Your task to perform on an android device: Toggle the flashlight Image 0: 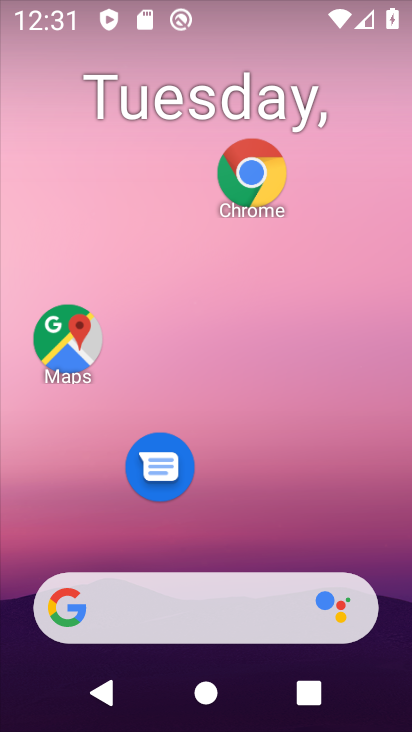
Step 0: drag from (322, 560) to (340, 19)
Your task to perform on an android device: Toggle the flashlight Image 1: 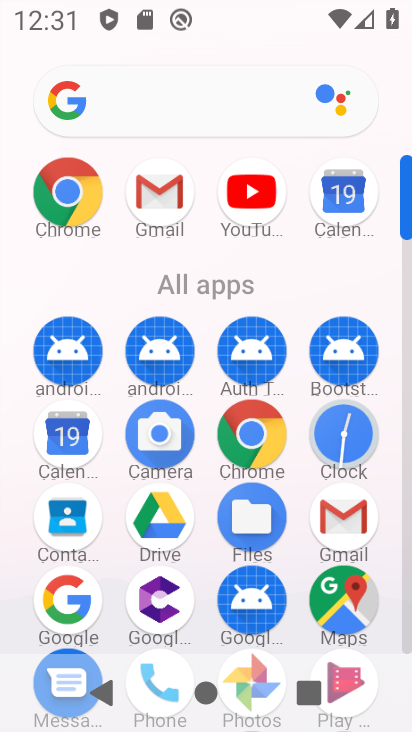
Step 1: drag from (278, 611) to (337, 158)
Your task to perform on an android device: Toggle the flashlight Image 2: 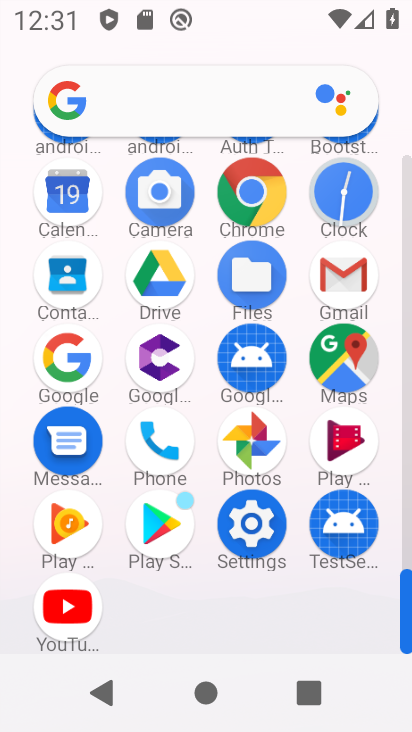
Step 2: click (272, 515)
Your task to perform on an android device: Toggle the flashlight Image 3: 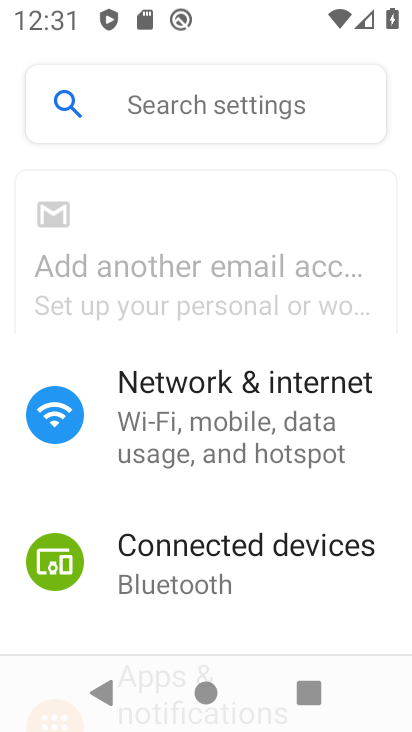
Step 3: task complete